Your task to perform on an android device: Go to eBay Image 0: 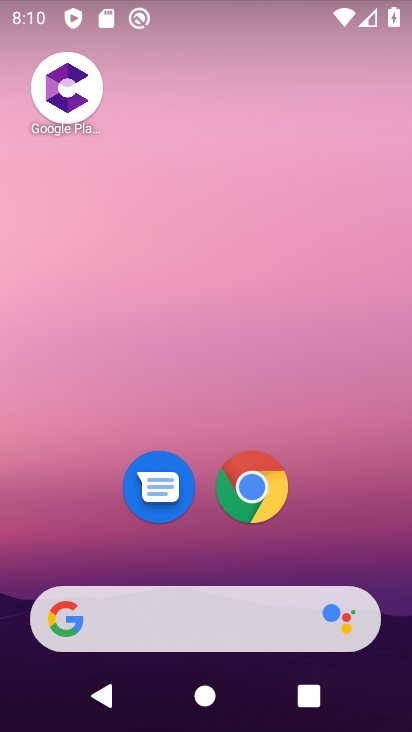
Step 0: click (252, 481)
Your task to perform on an android device: Go to eBay Image 1: 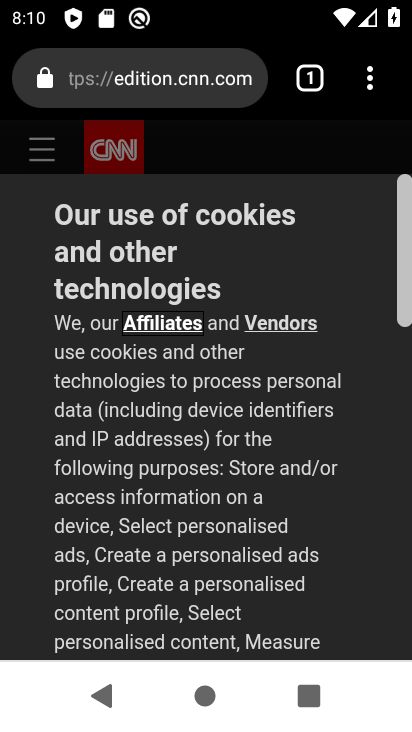
Step 1: click (374, 80)
Your task to perform on an android device: Go to eBay Image 2: 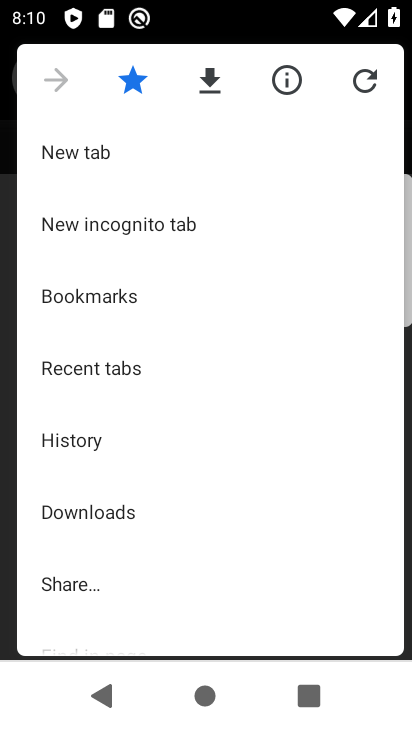
Step 2: click (93, 150)
Your task to perform on an android device: Go to eBay Image 3: 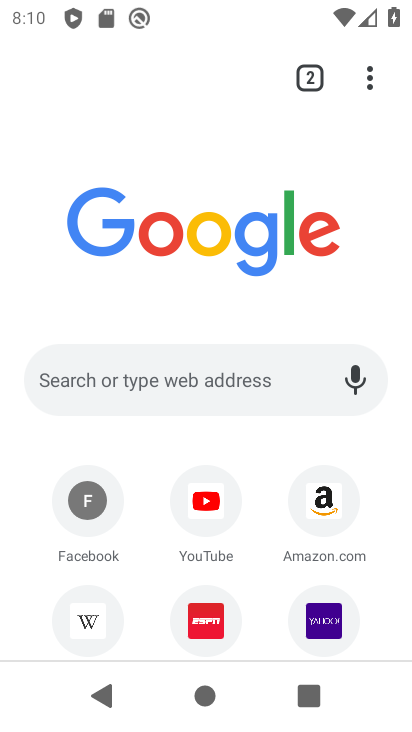
Step 3: click (211, 369)
Your task to perform on an android device: Go to eBay Image 4: 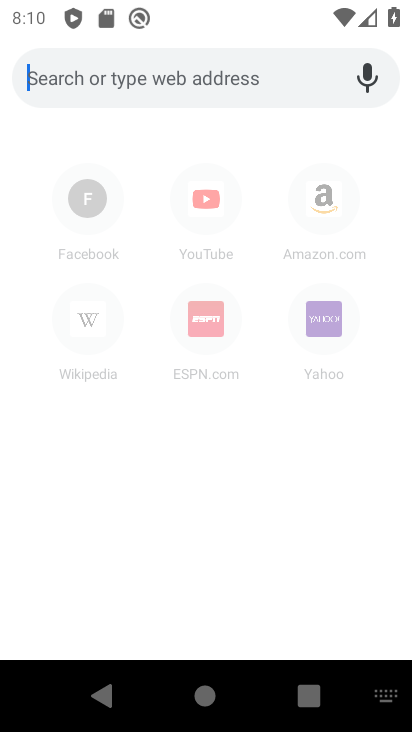
Step 4: type "ebay"
Your task to perform on an android device: Go to eBay Image 5: 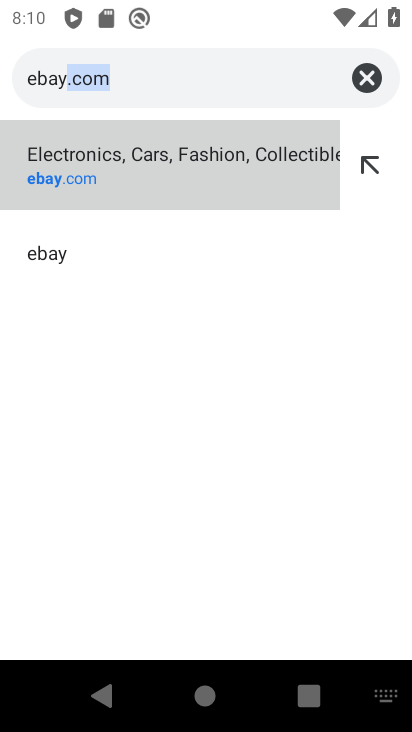
Step 5: click (132, 154)
Your task to perform on an android device: Go to eBay Image 6: 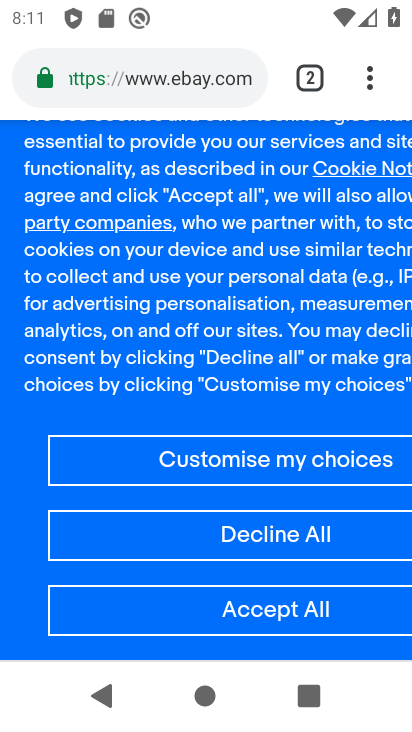
Step 6: task complete